Your task to perform on an android device: Search for the new Jordans on Nike.com Image 0: 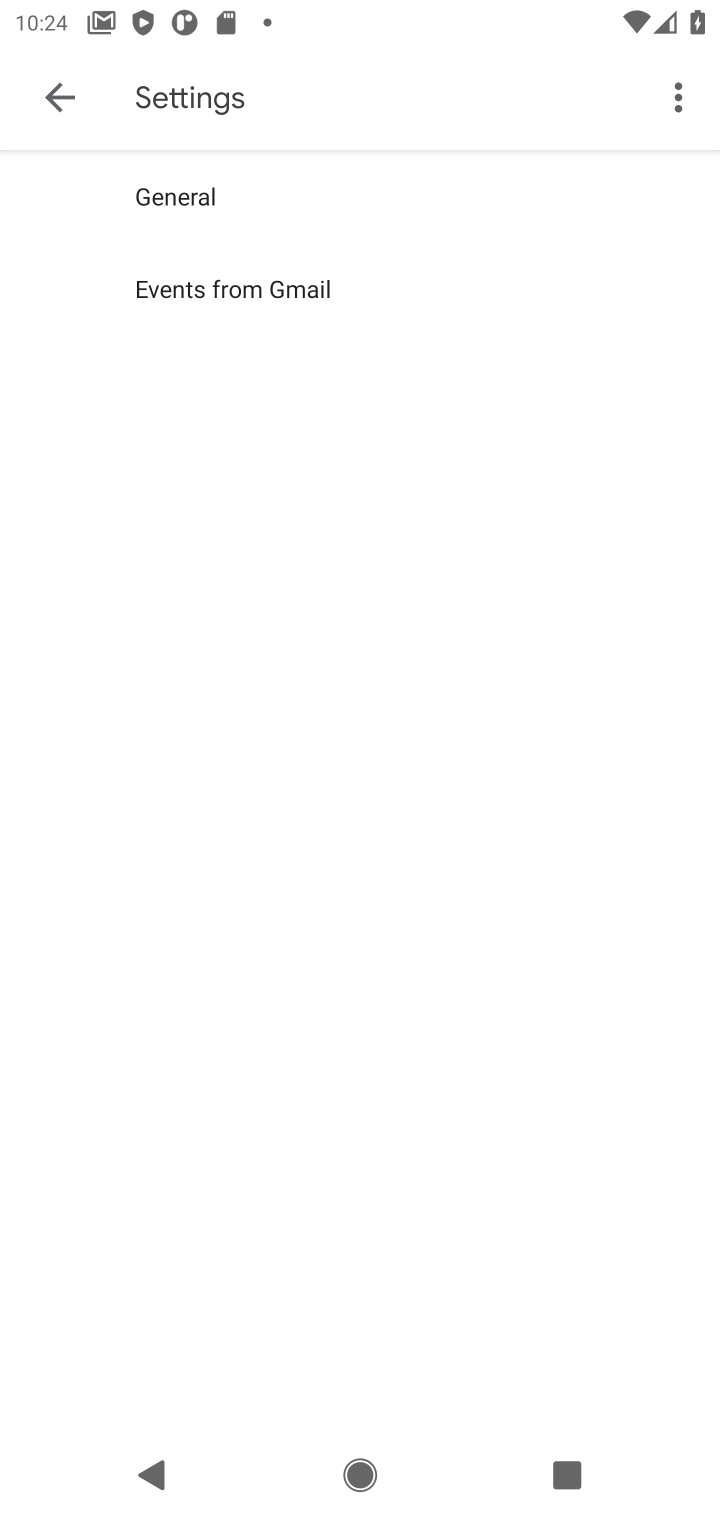
Step 0: press home button
Your task to perform on an android device: Search for the new Jordans on Nike.com Image 1: 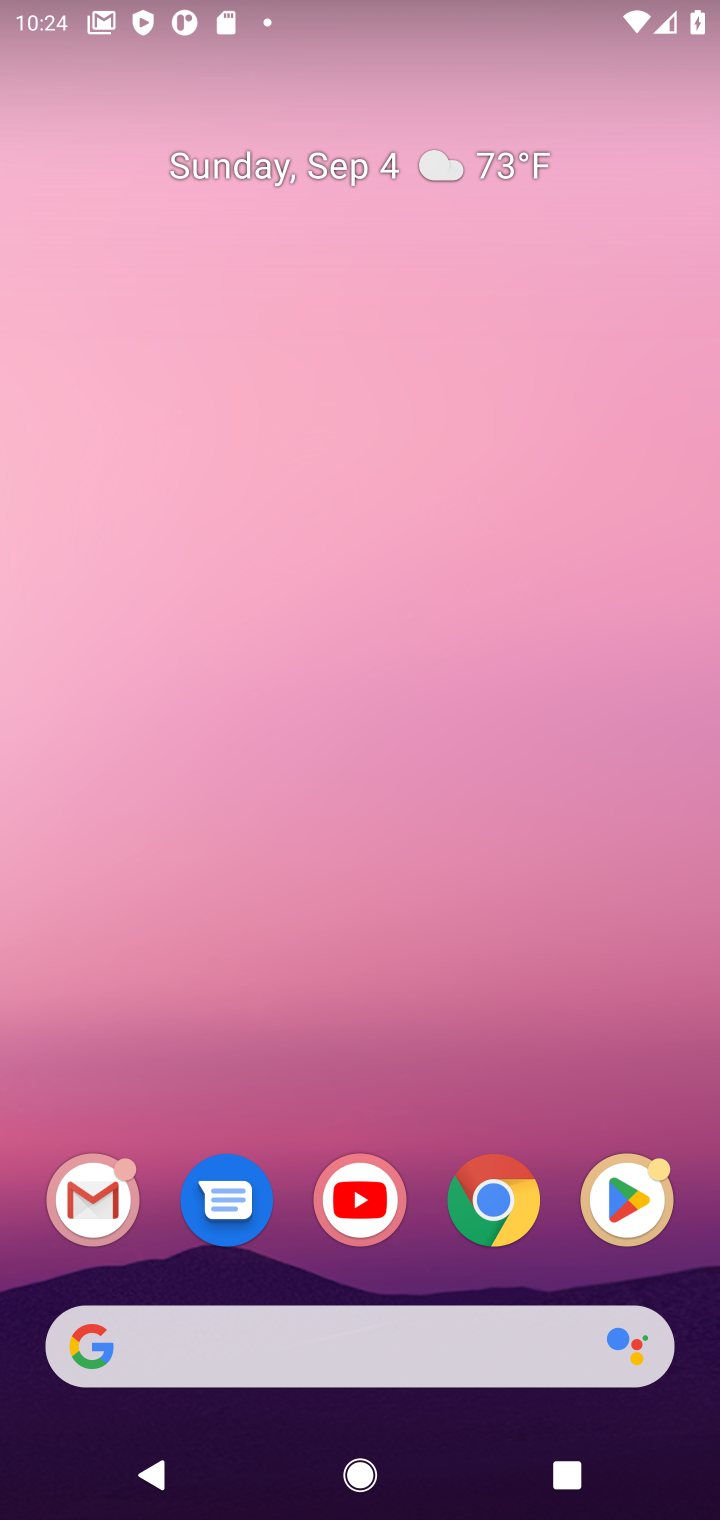
Step 1: click (494, 1198)
Your task to perform on an android device: Search for the new Jordans on Nike.com Image 2: 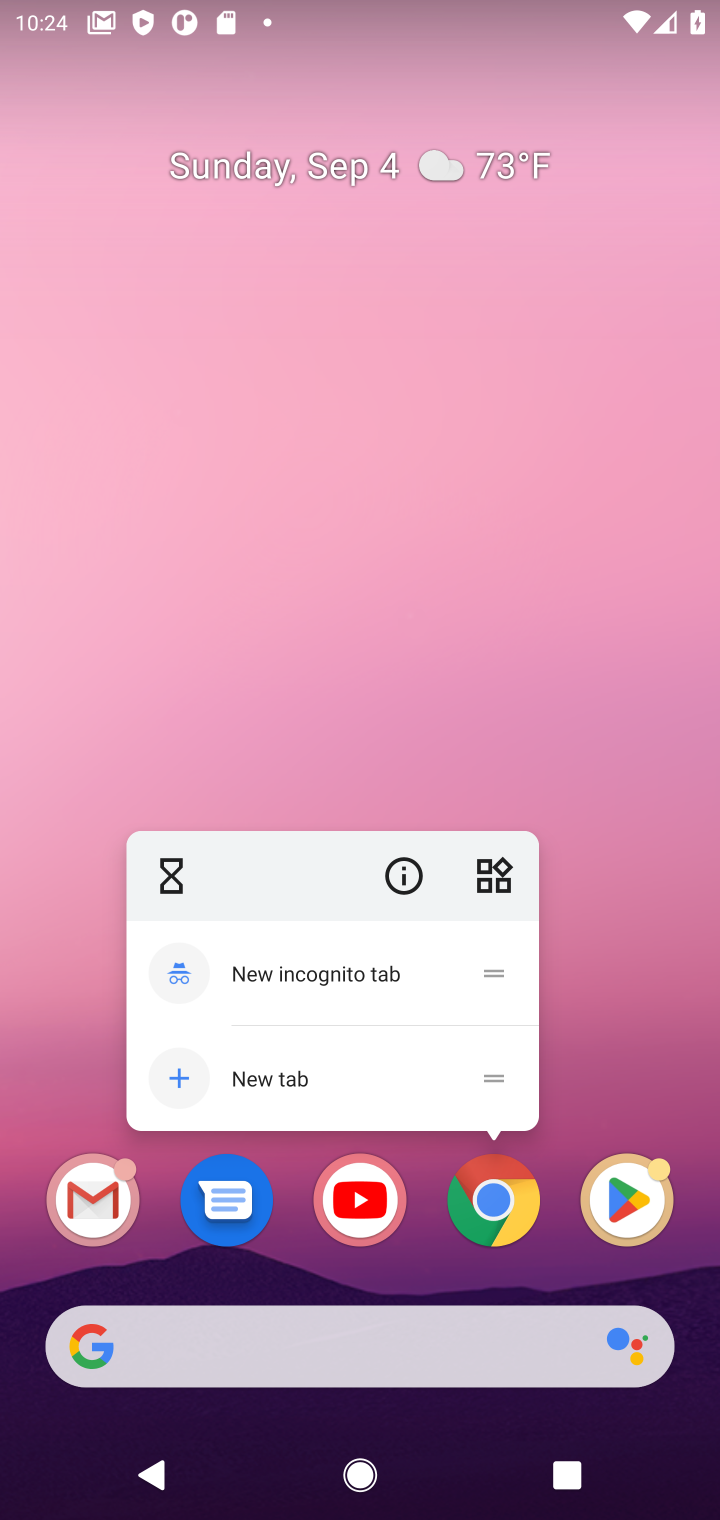
Step 2: click (492, 1221)
Your task to perform on an android device: Search for the new Jordans on Nike.com Image 3: 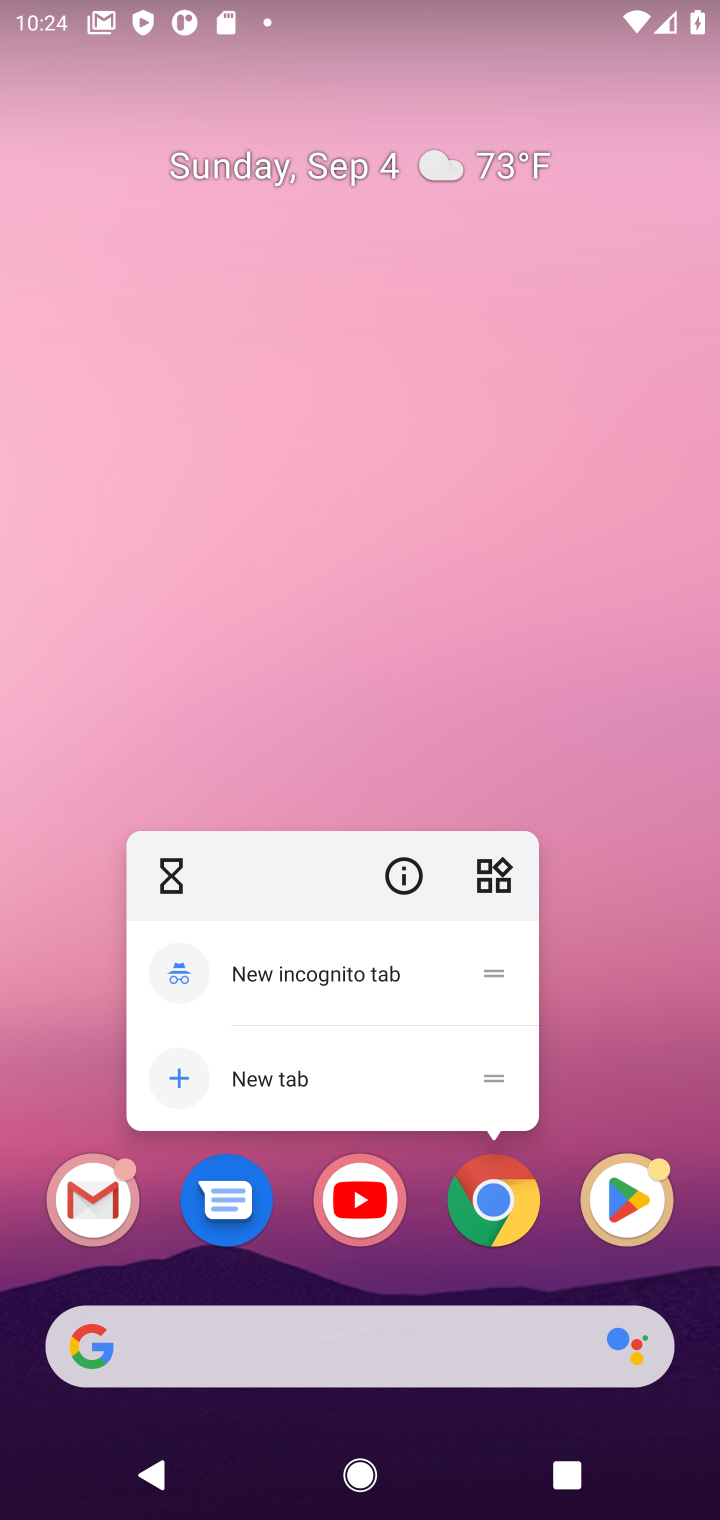
Step 3: click (492, 1230)
Your task to perform on an android device: Search for the new Jordans on Nike.com Image 4: 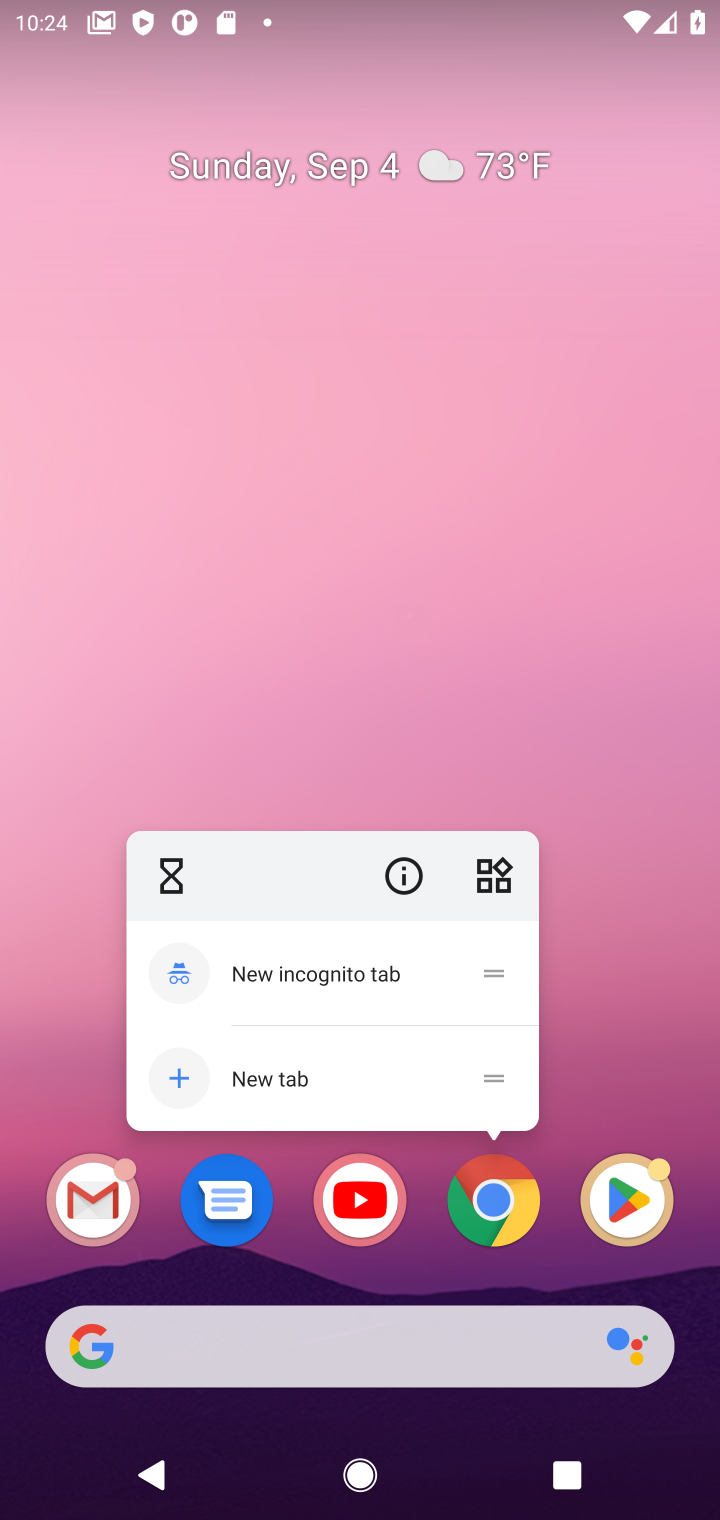
Step 4: click (492, 1230)
Your task to perform on an android device: Search for the new Jordans on Nike.com Image 5: 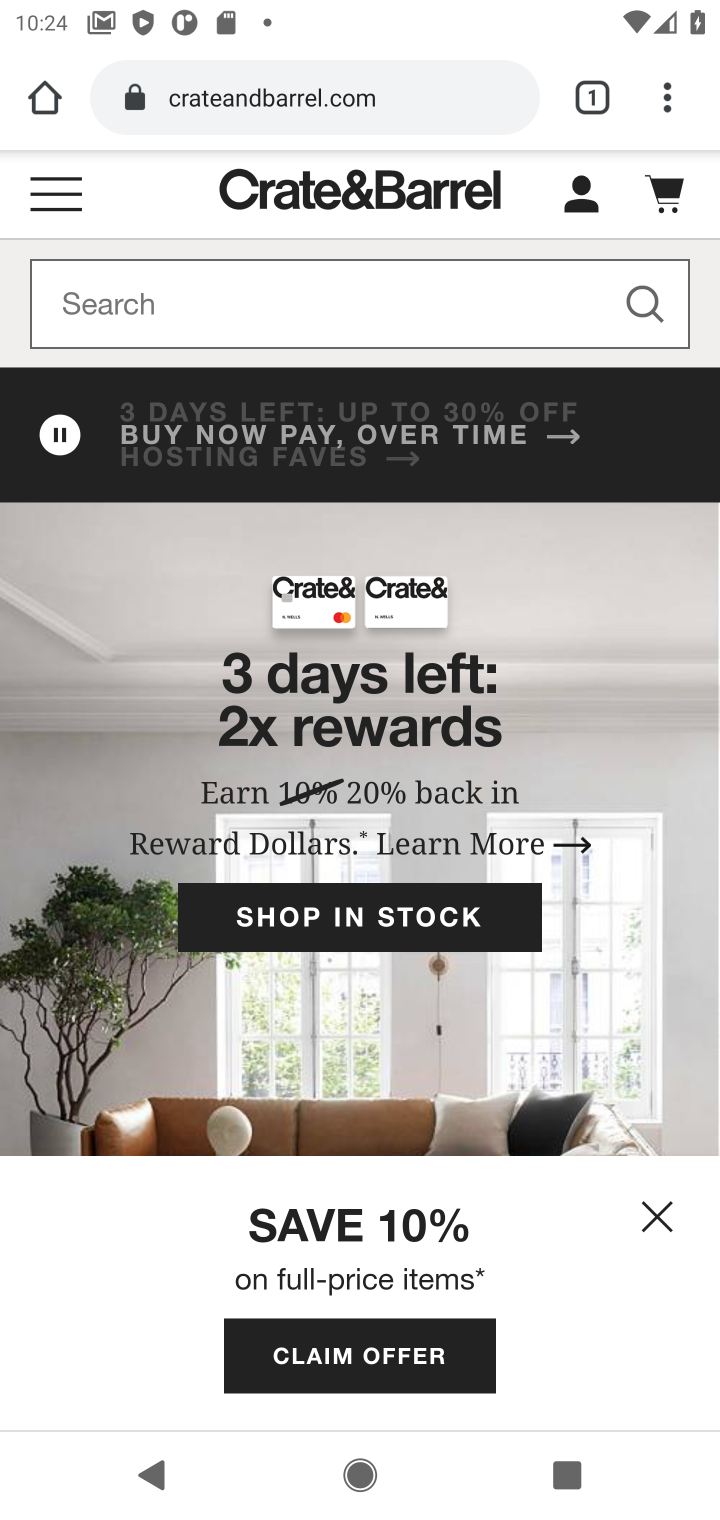
Step 5: click (381, 94)
Your task to perform on an android device: Search for the new Jordans on Nike.com Image 6: 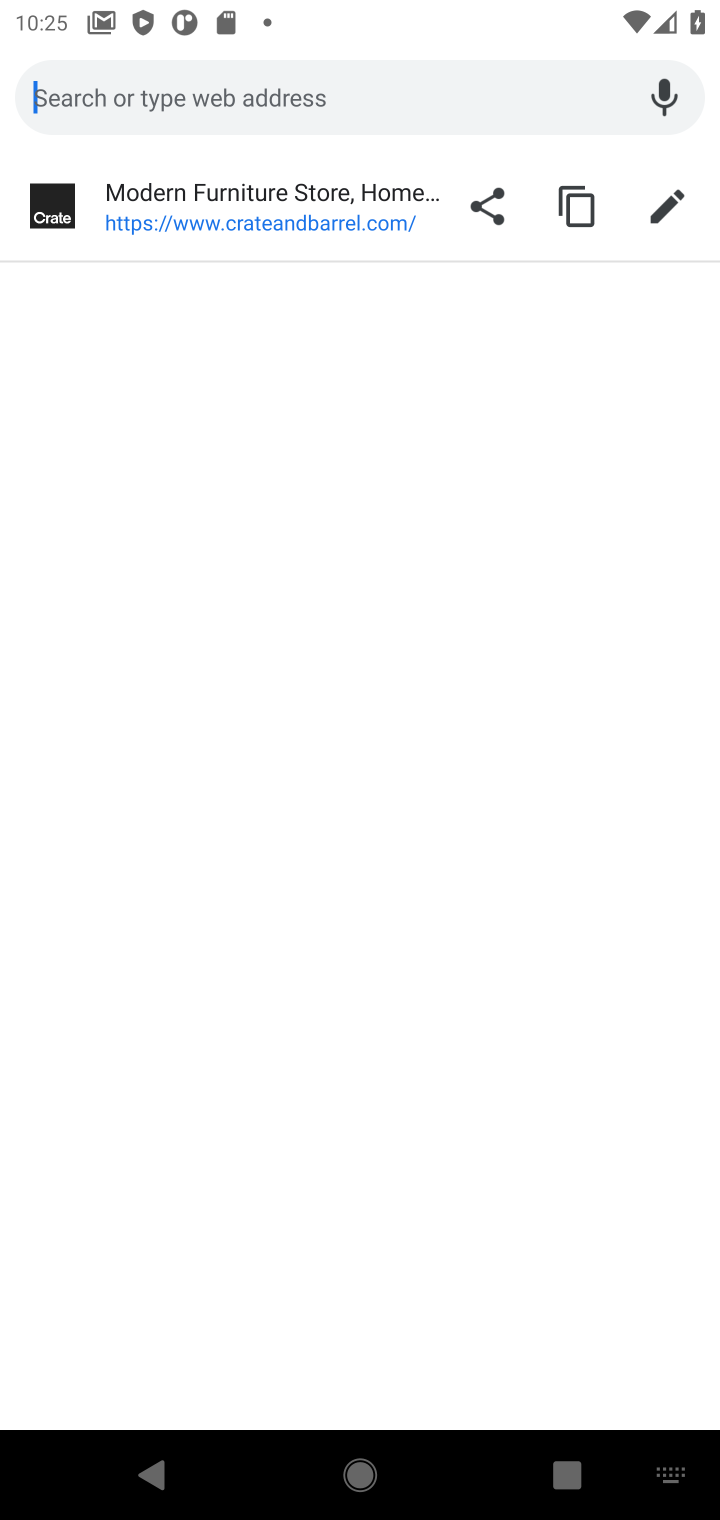
Step 6: type "nike.com"
Your task to perform on an android device: Search for the new Jordans on Nike.com Image 7: 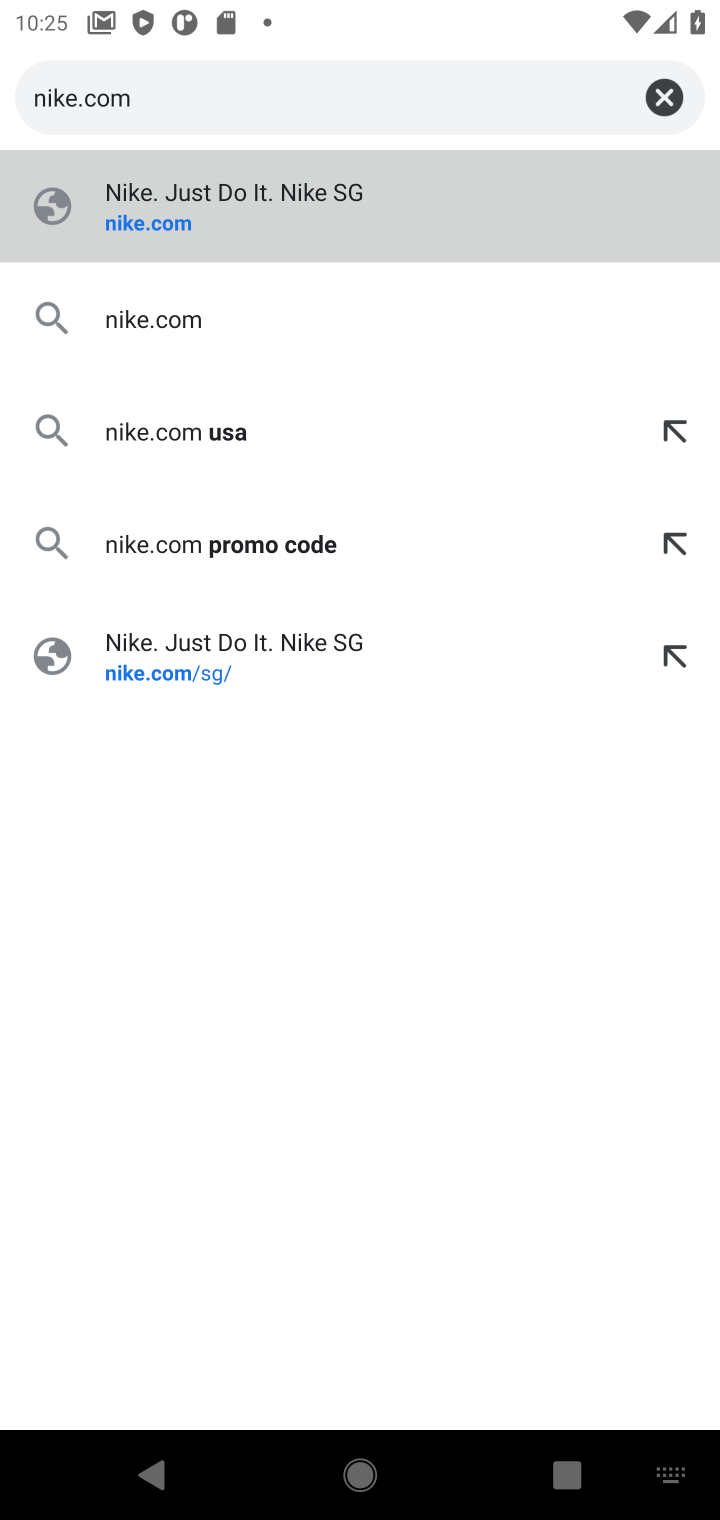
Step 7: click (196, 193)
Your task to perform on an android device: Search for the new Jordans on Nike.com Image 8: 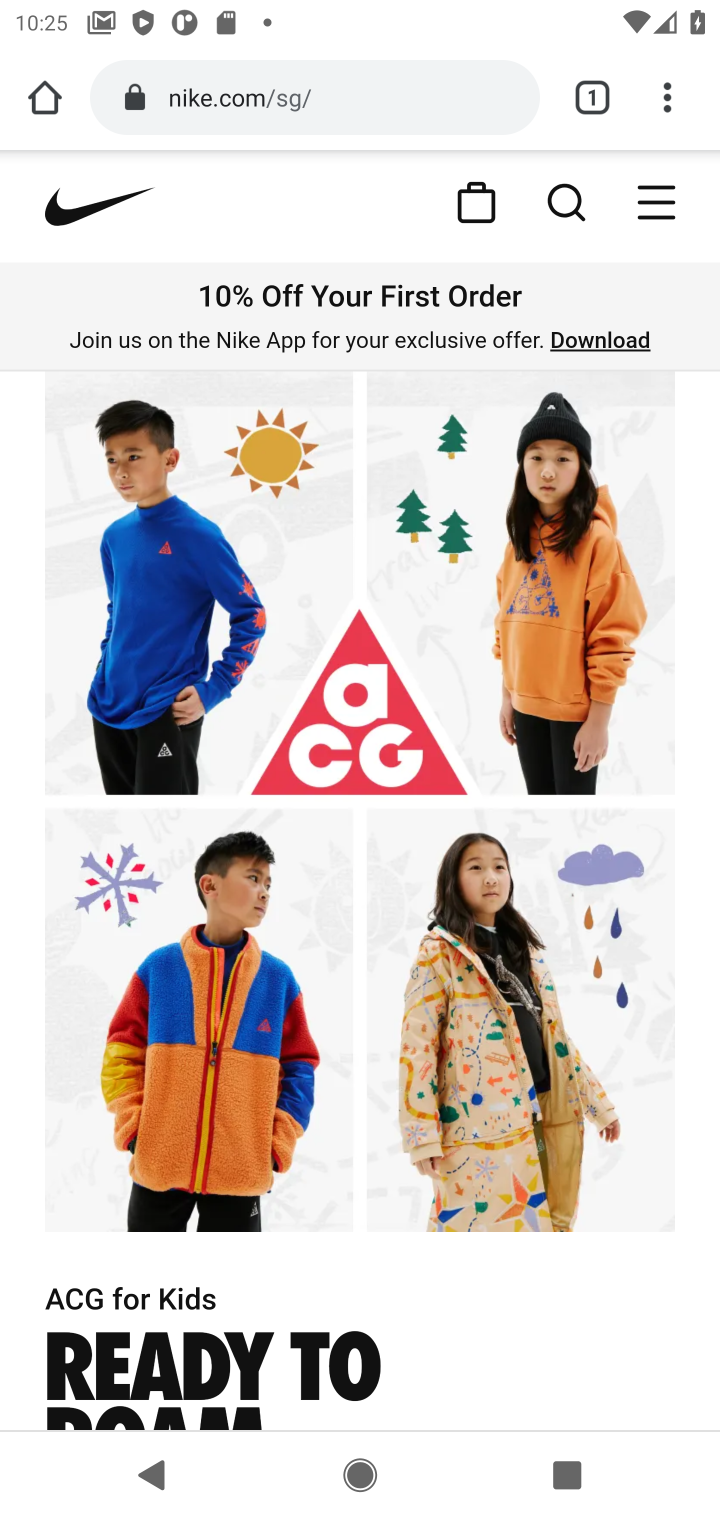
Step 8: click (562, 216)
Your task to perform on an android device: Search for the new Jordans on Nike.com Image 9: 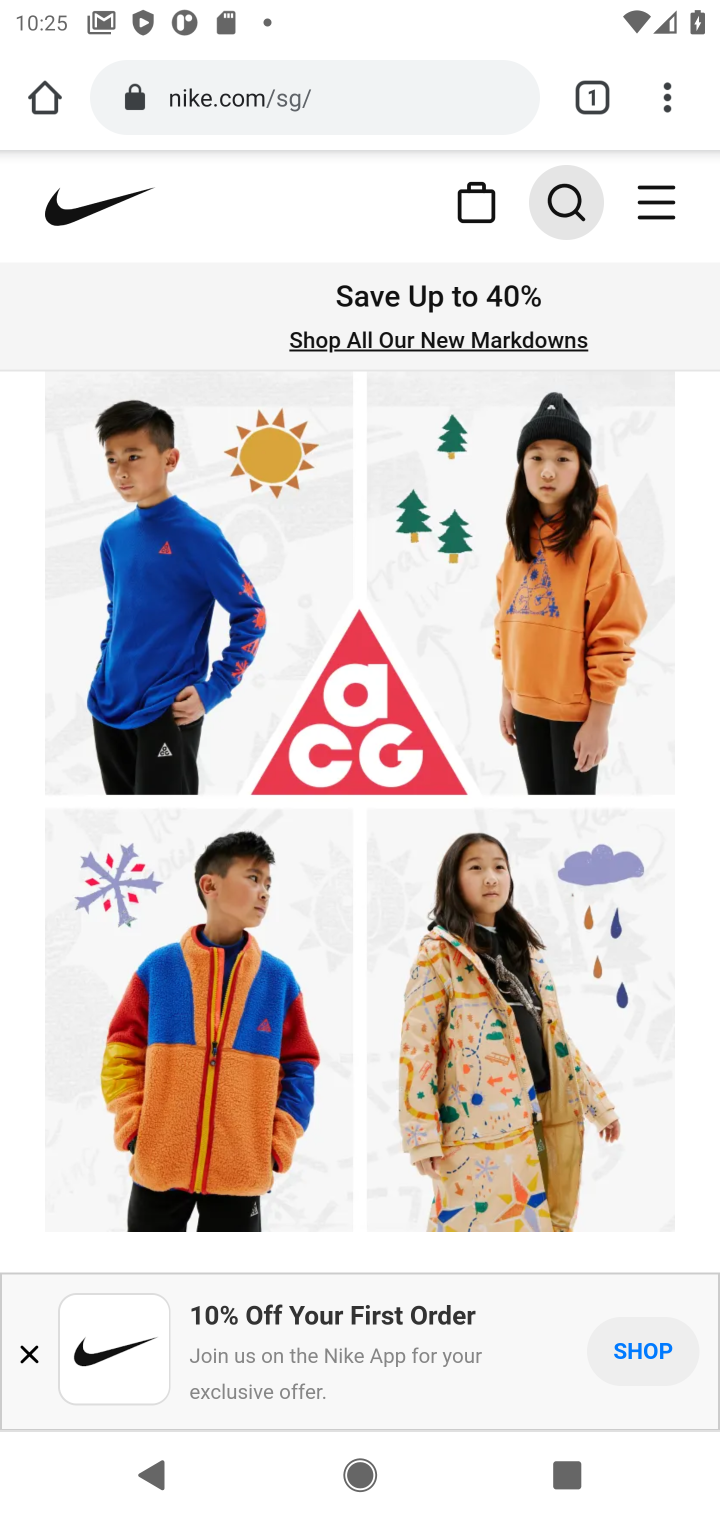
Step 9: click (562, 216)
Your task to perform on an android device: Search for the new Jordans on Nike.com Image 10: 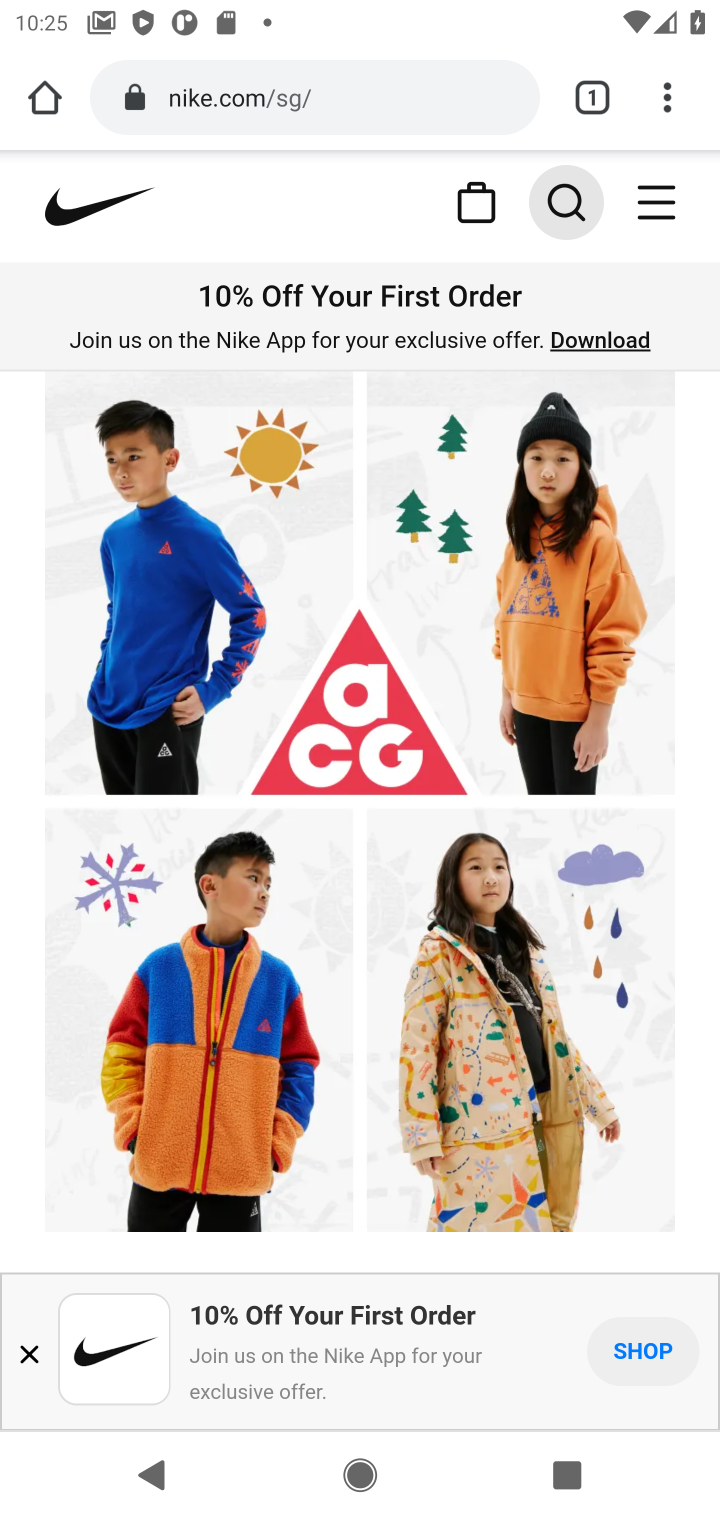
Step 10: click (577, 210)
Your task to perform on an android device: Search for the new Jordans on Nike.com Image 11: 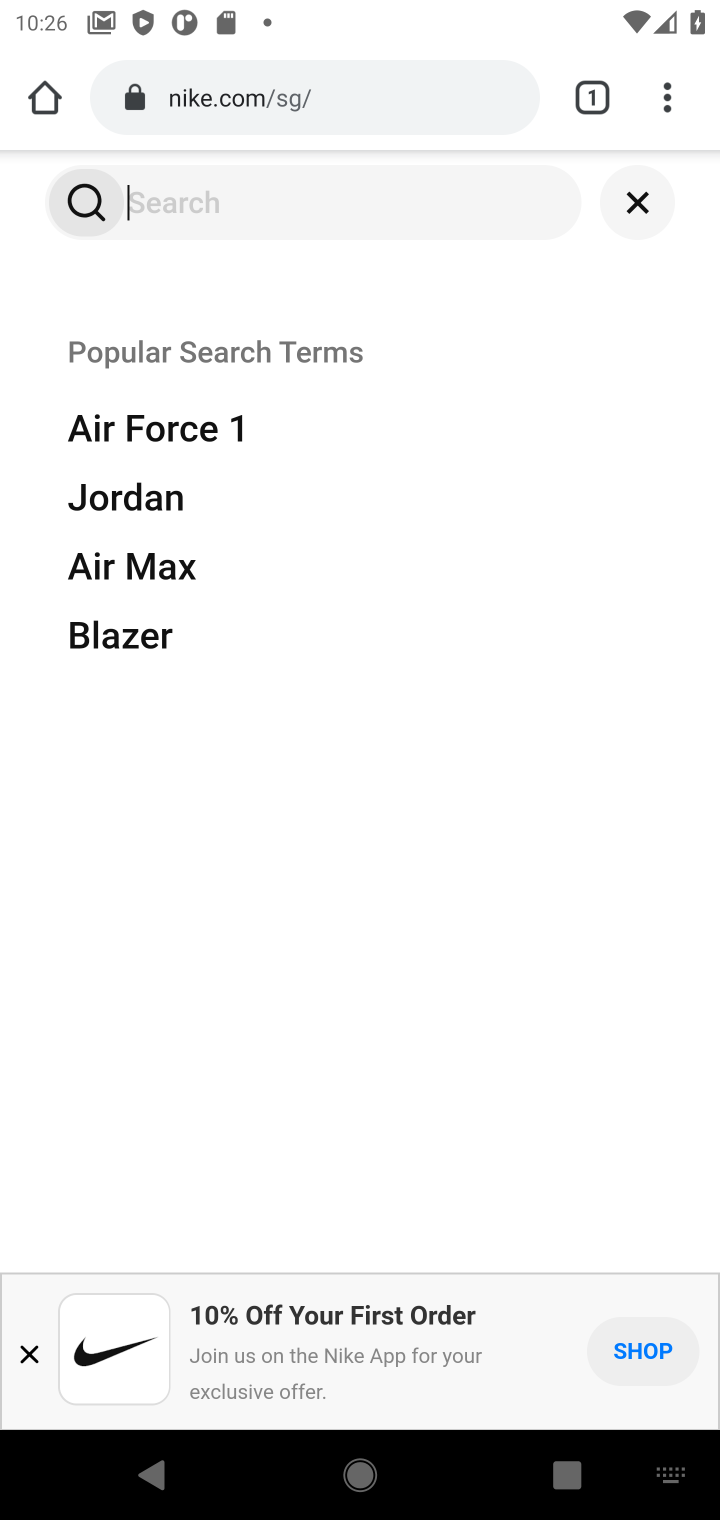
Step 11: type "new jordans"
Your task to perform on an android device: Search for the new Jordans on Nike.com Image 12: 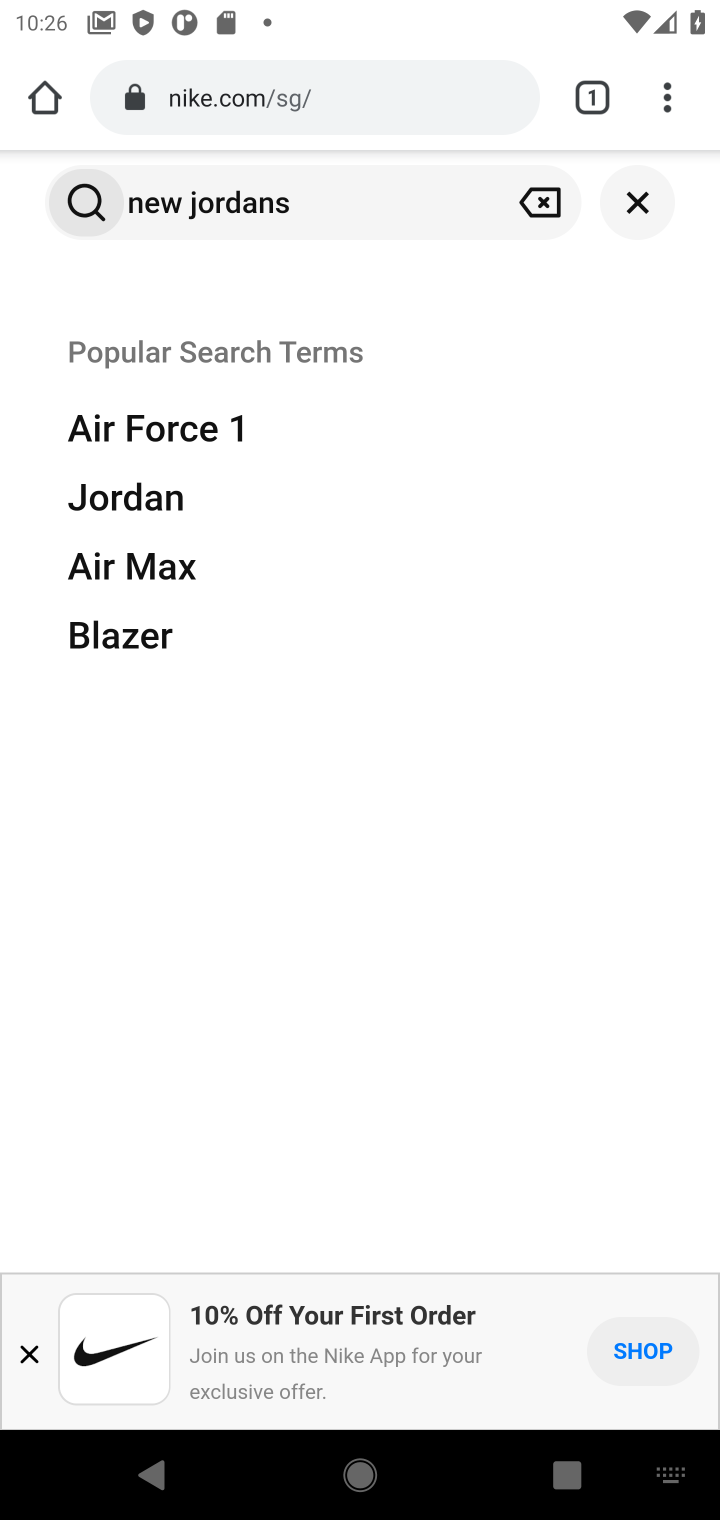
Step 12: click (88, 217)
Your task to perform on an android device: Search for the new Jordans on Nike.com Image 13: 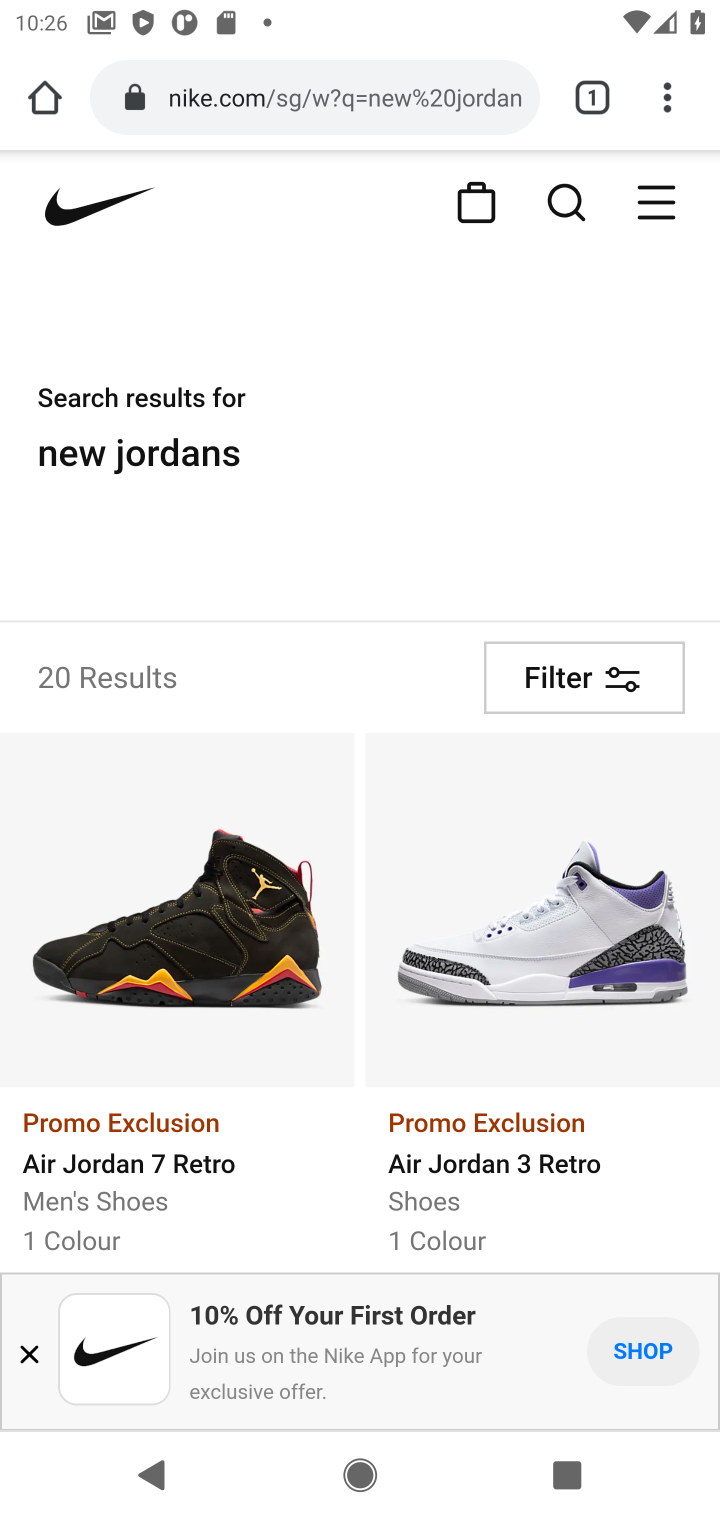
Step 13: task complete